Your task to perform on an android device: check storage Image 0: 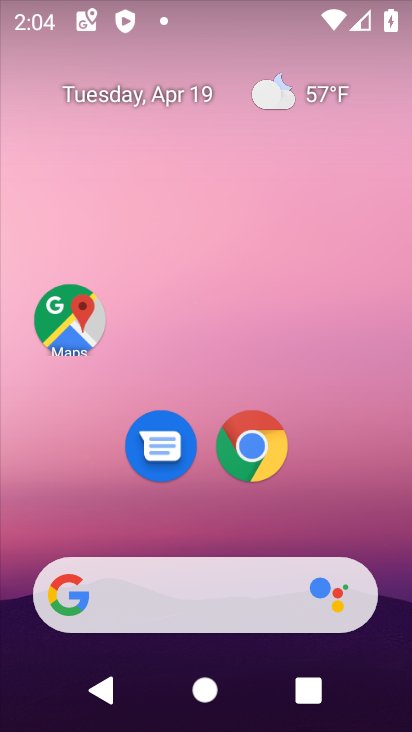
Step 0: drag from (327, 327) to (198, 8)
Your task to perform on an android device: check storage Image 1: 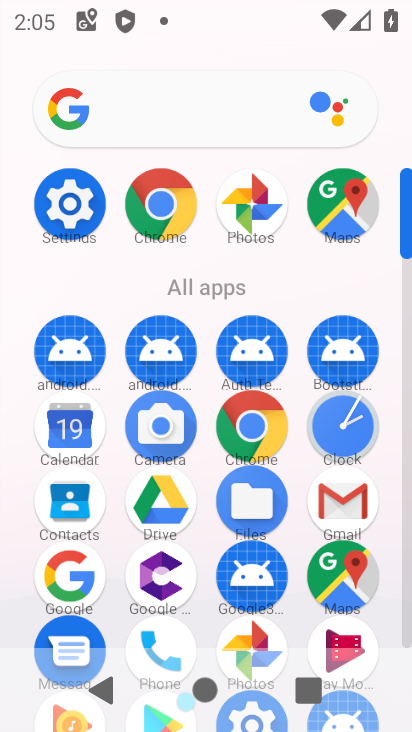
Step 1: click (34, 185)
Your task to perform on an android device: check storage Image 2: 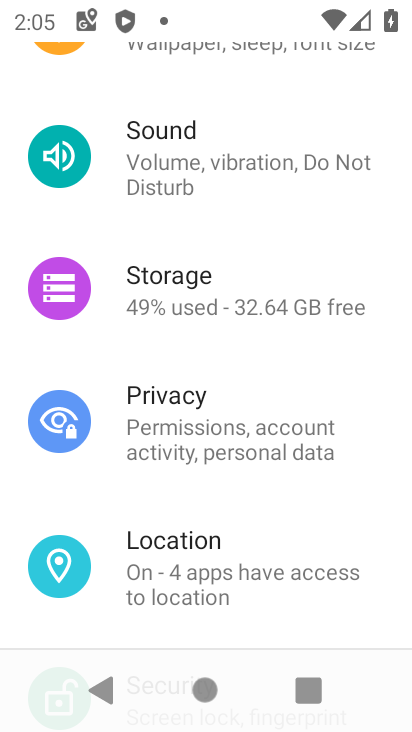
Step 2: click (180, 272)
Your task to perform on an android device: check storage Image 3: 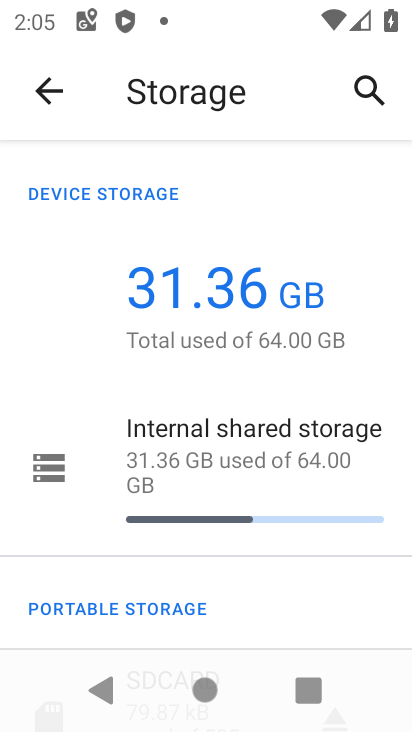
Step 3: task complete